Your task to perform on an android device: choose inbox layout in the gmail app Image 0: 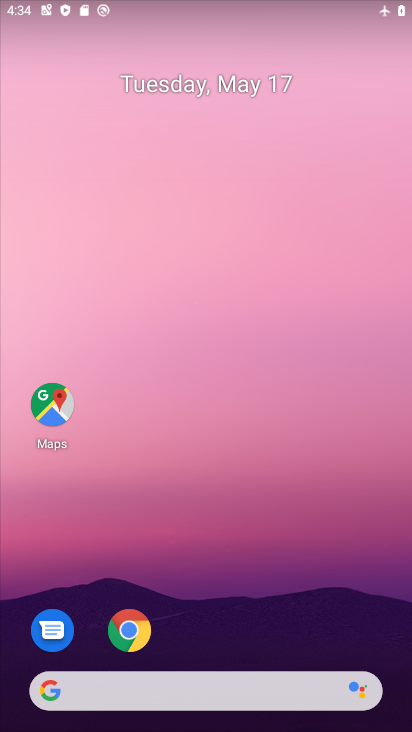
Step 0: drag from (218, 725) to (222, 119)
Your task to perform on an android device: choose inbox layout in the gmail app Image 1: 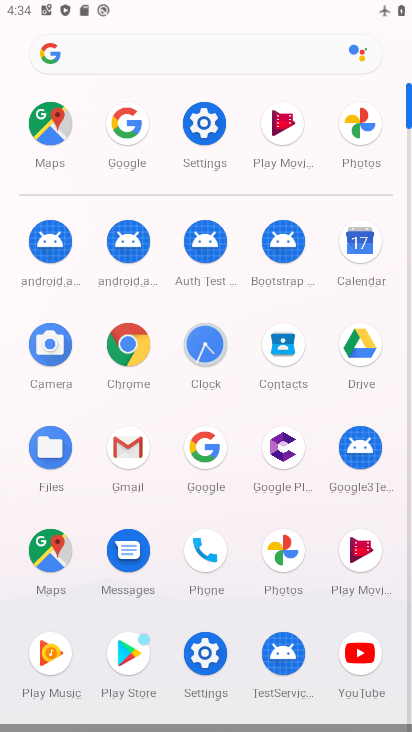
Step 1: click (129, 450)
Your task to perform on an android device: choose inbox layout in the gmail app Image 2: 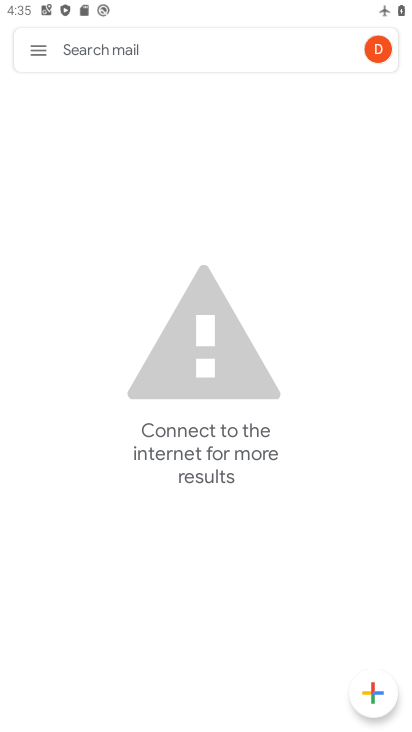
Step 2: click (37, 46)
Your task to perform on an android device: choose inbox layout in the gmail app Image 3: 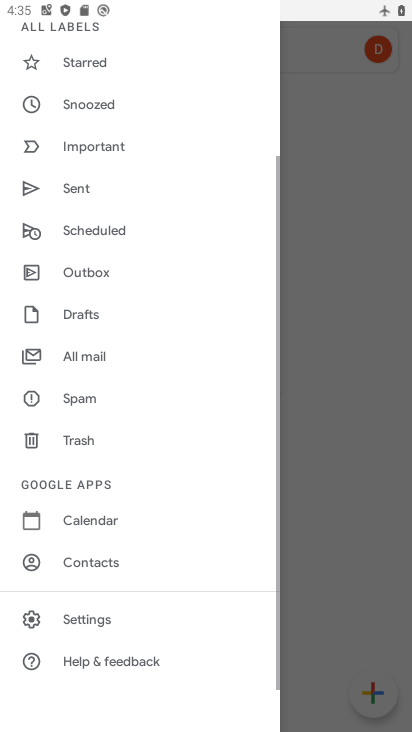
Step 3: drag from (96, 654) to (127, 391)
Your task to perform on an android device: choose inbox layout in the gmail app Image 4: 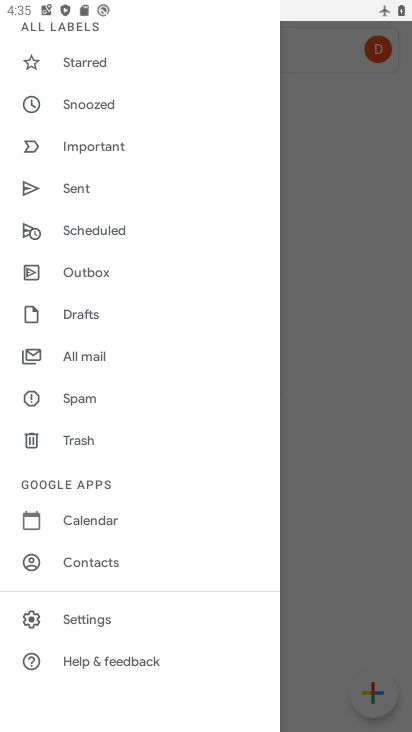
Step 4: click (86, 616)
Your task to perform on an android device: choose inbox layout in the gmail app Image 5: 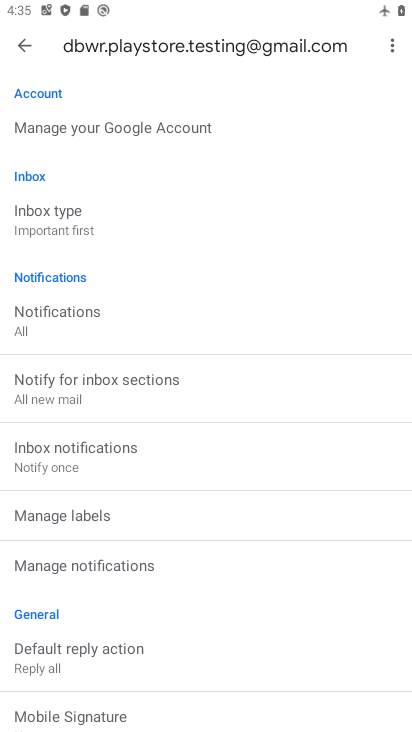
Step 5: click (53, 213)
Your task to perform on an android device: choose inbox layout in the gmail app Image 6: 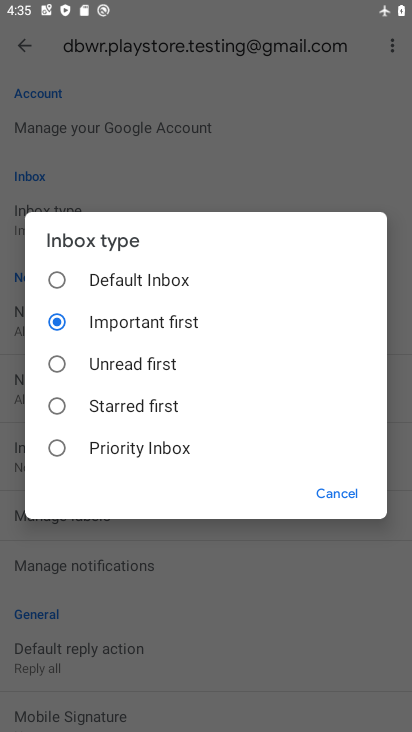
Step 6: click (60, 279)
Your task to perform on an android device: choose inbox layout in the gmail app Image 7: 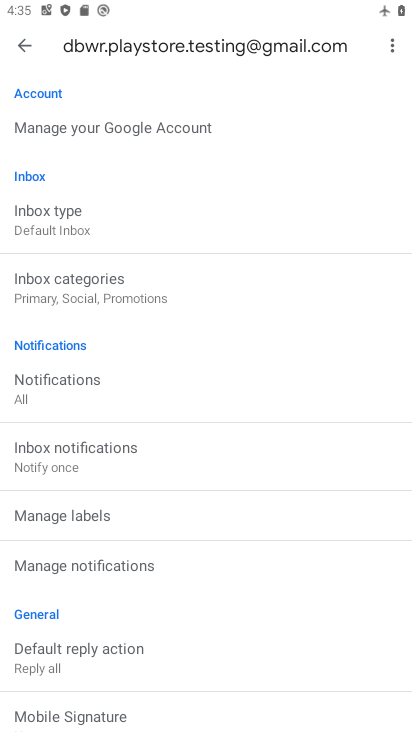
Step 7: task complete